Your task to perform on an android device: Go to privacy settings Image 0: 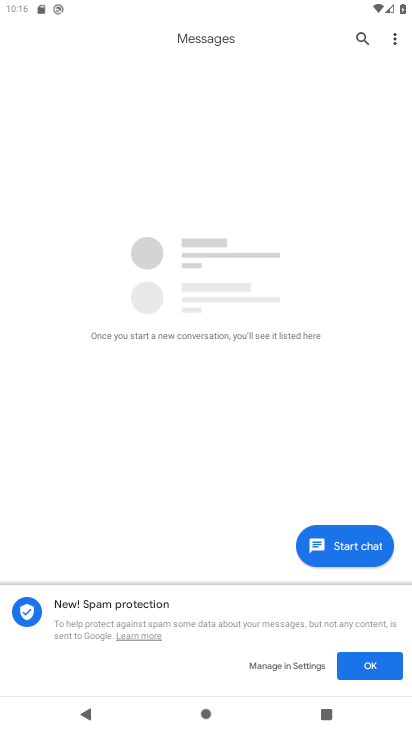
Step 0: press home button
Your task to perform on an android device: Go to privacy settings Image 1: 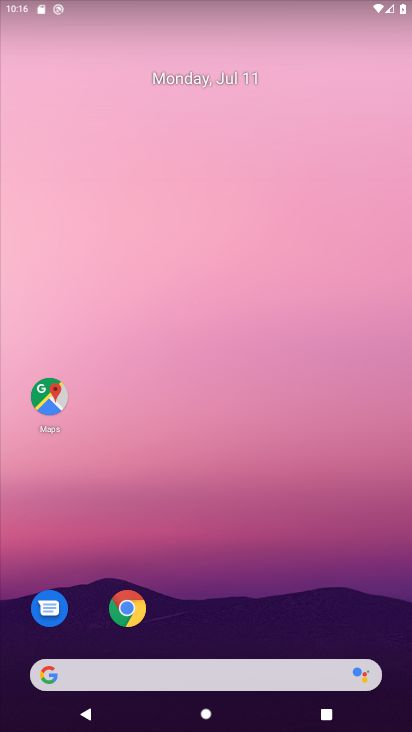
Step 1: click (137, 611)
Your task to perform on an android device: Go to privacy settings Image 2: 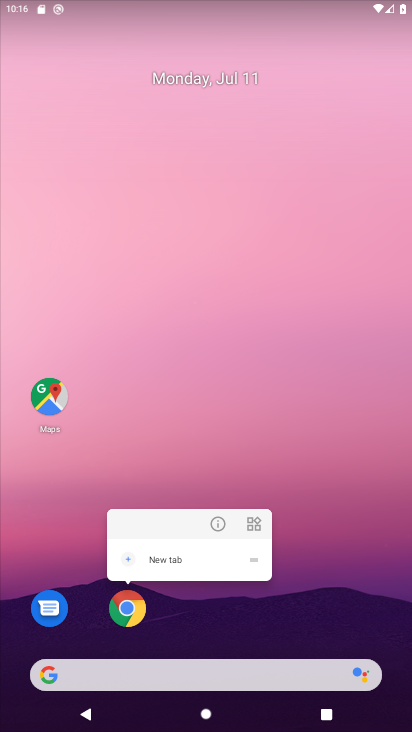
Step 2: click (134, 620)
Your task to perform on an android device: Go to privacy settings Image 3: 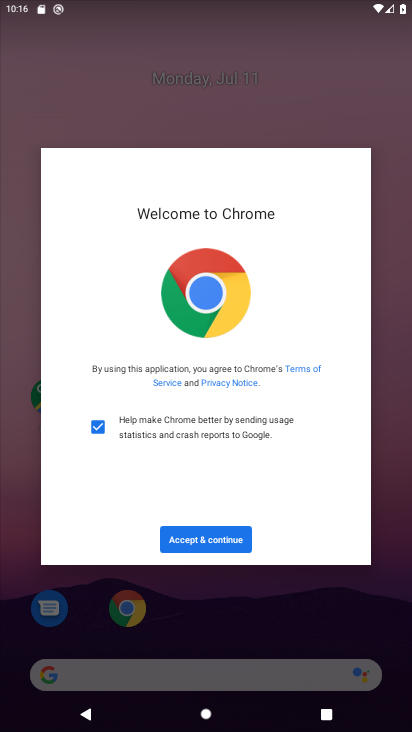
Step 3: click (223, 555)
Your task to perform on an android device: Go to privacy settings Image 4: 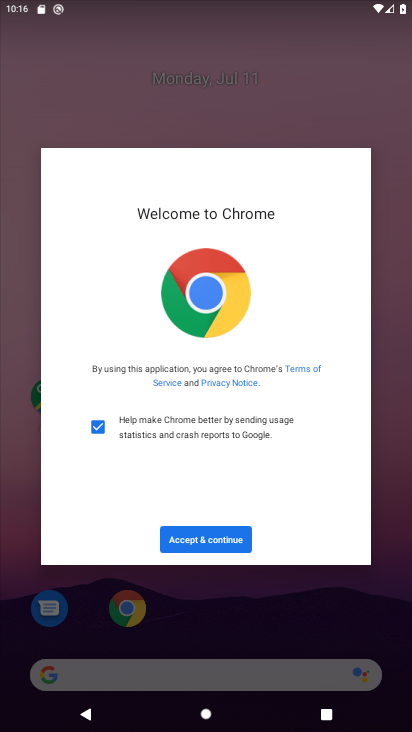
Step 4: click (235, 546)
Your task to perform on an android device: Go to privacy settings Image 5: 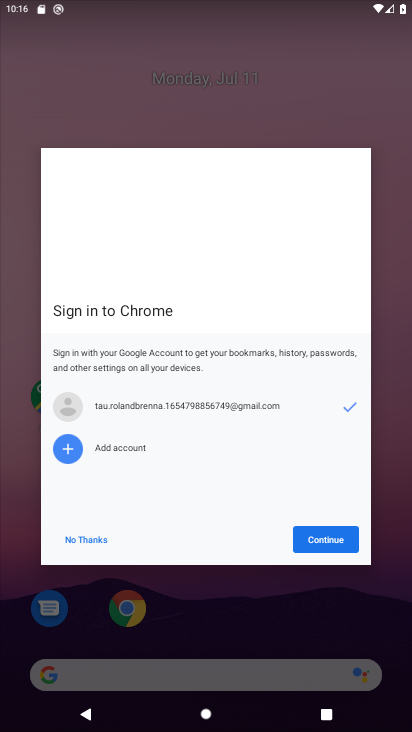
Step 5: click (314, 540)
Your task to perform on an android device: Go to privacy settings Image 6: 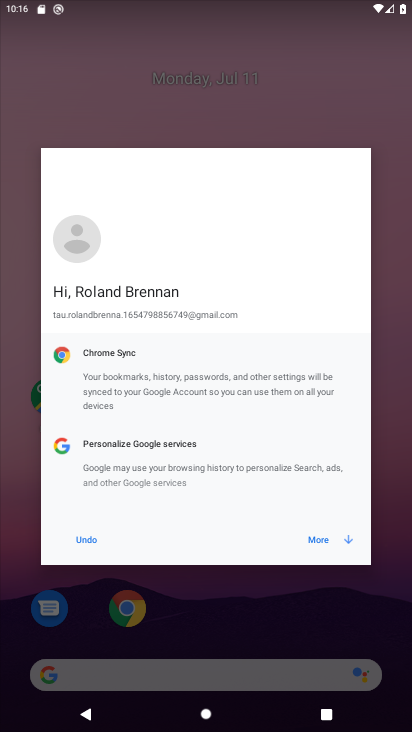
Step 6: click (314, 540)
Your task to perform on an android device: Go to privacy settings Image 7: 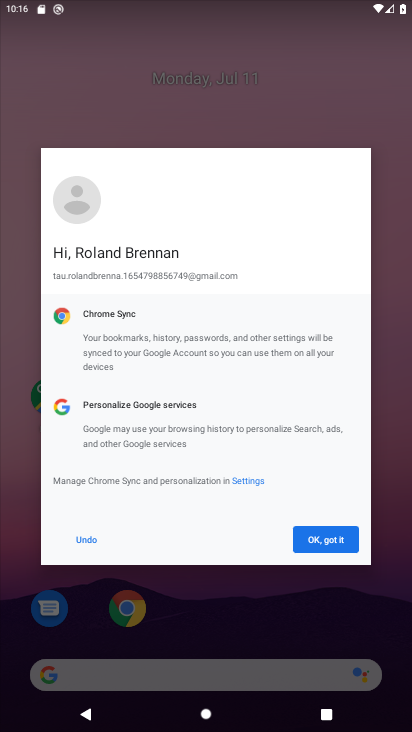
Step 7: click (317, 541)
Your task to perform on an android device: Go to privacy settings Image 8: 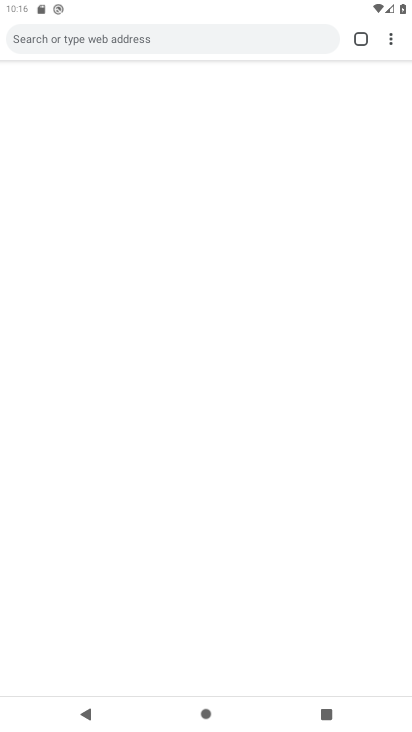
Step 8: drag from (317, 541) to (296, 666)
Your task to perform on an android device: Go to privacy settings Image 9: 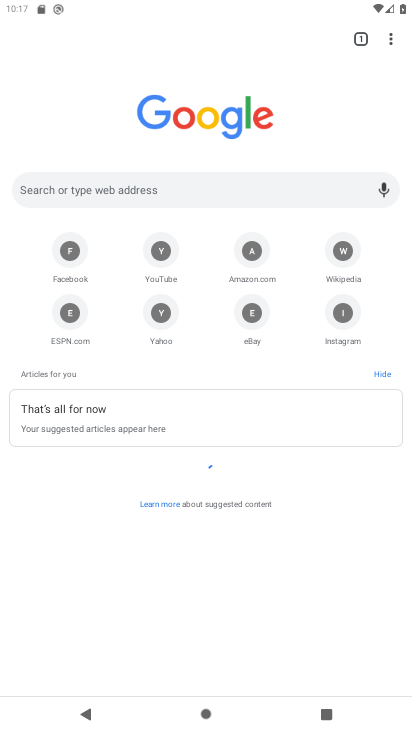
Step 9: drag from (388, 34) to (295, 326)
Your task to perform on an android device: Go to privacy settings Image 10: 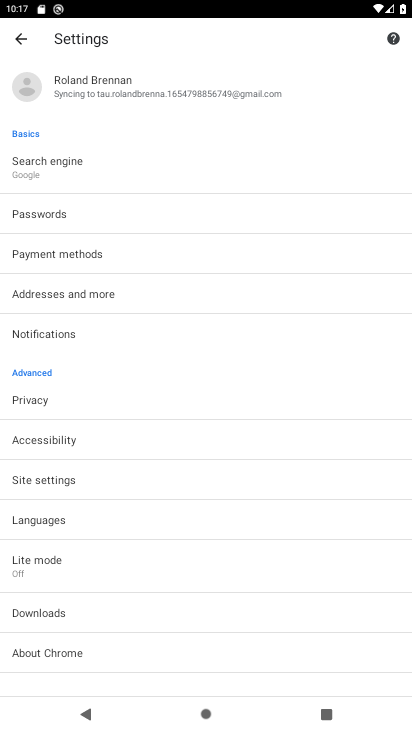
Step 10: click (97, 405)
Your task to perform on an android device: Go to privacy settings Image 11: 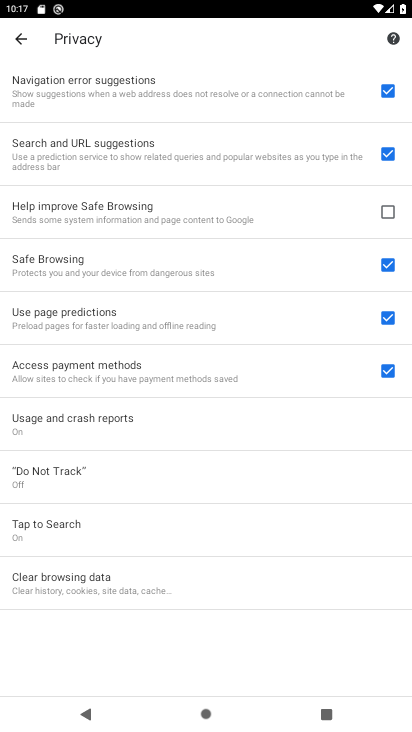
Step 11: task complete